Your task to perform on an android device: set the timer Image 0: 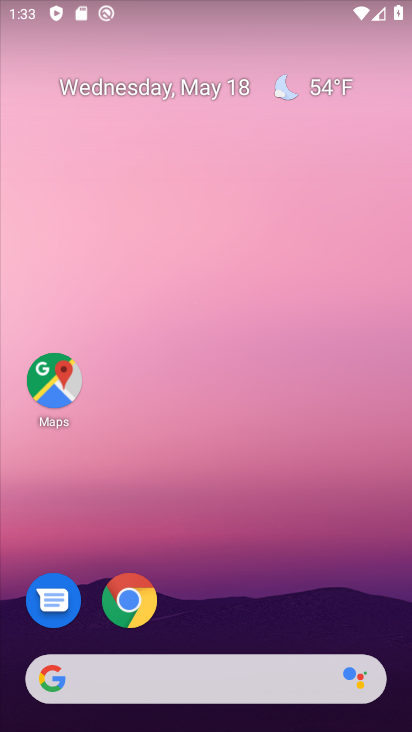
Step 0: drag from (250, 618) to (284, 193)
Your task to perform on an android device: set the timer Image 1: 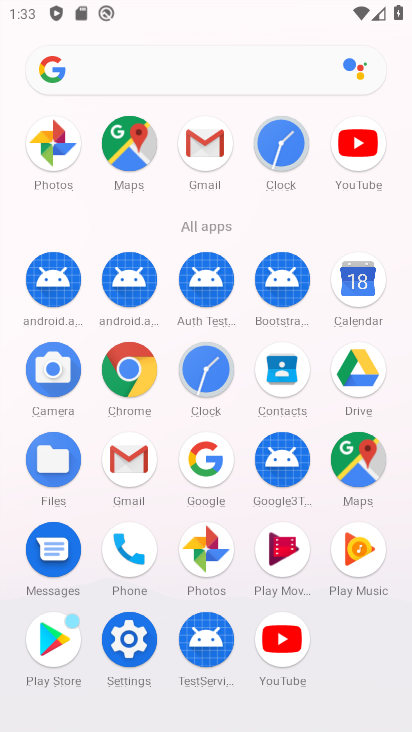
Step 1: click (276, 169)
Your task to perform on an android device: set the timer Image 2: 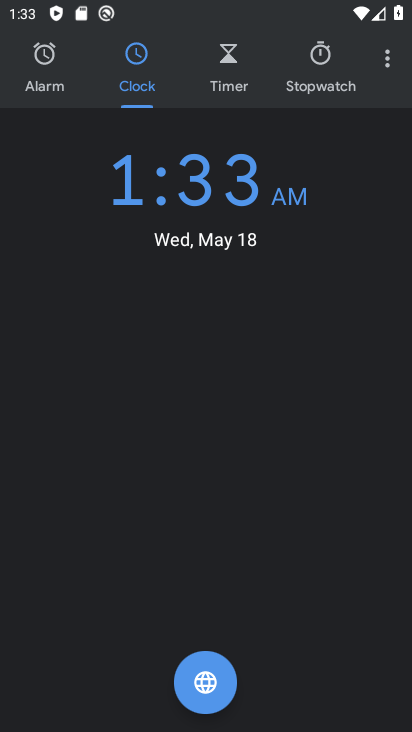
Step 2: click (242, 64)
Your task to perform on an android device: set the timer Image 3: 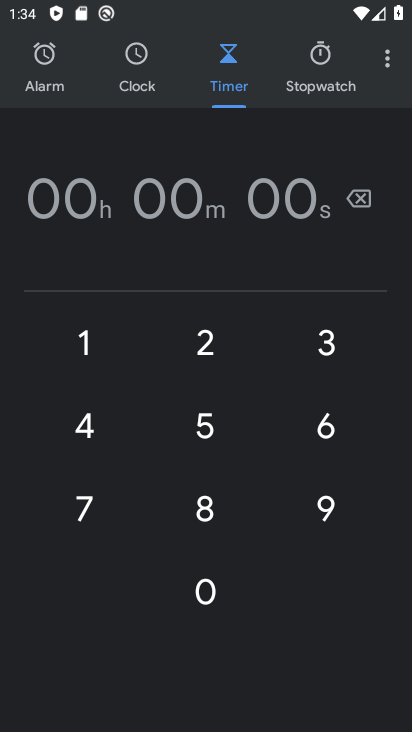
Step 3: click (205, 422)
Your task to perform on an android device: set the timer Image 4: 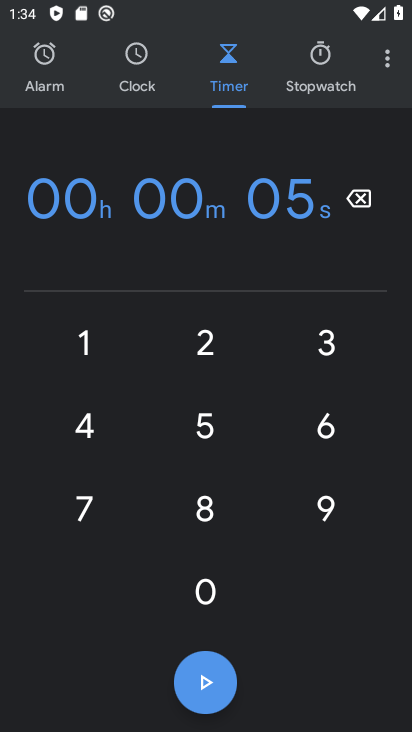
Step 4: click (201, 697)
Your task to perform on an android device: set the timer Image 5: 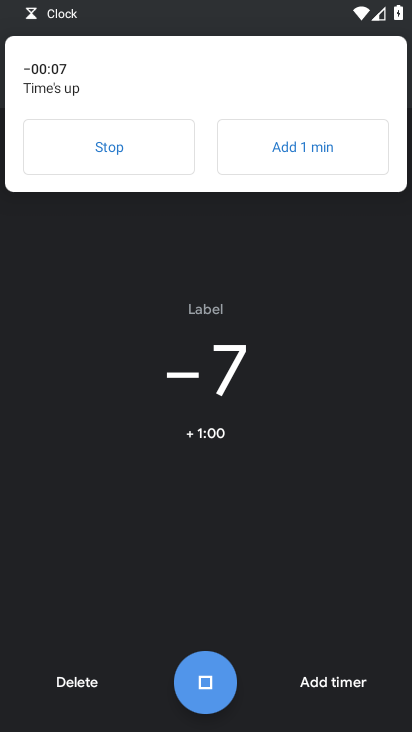
Step 5: click (129, 158)
Your task to perform on an android device: set the timer Image 6: 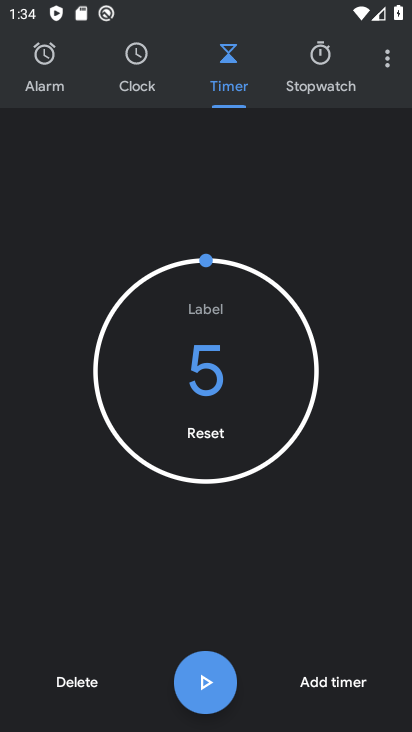
Step 6: task complete